Your task to perform on an android device: turn on priority inbox in the gmail app Image 0: 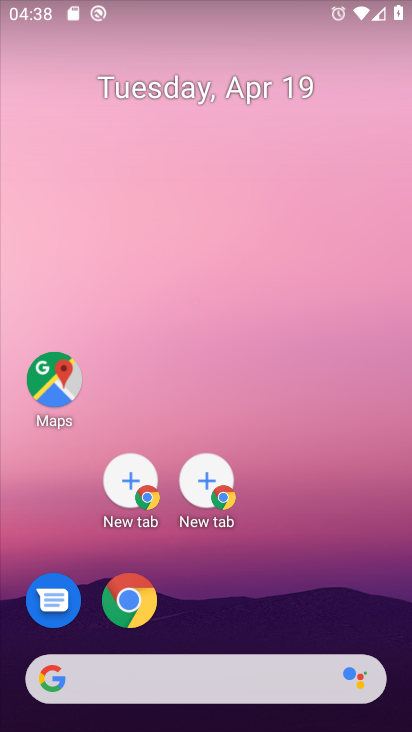
Step 0: drag from (201, 628) to (176, 78)
Your task to perform on an android device: turn on priority inbox in the gmail app Image 1: 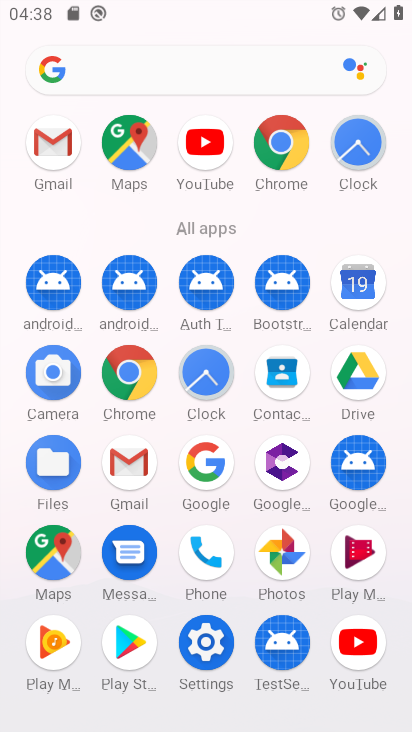
Step 1: click (43, 141)
Your task to perform on an android device: turn on priority inbox in the gmail app Image 2: 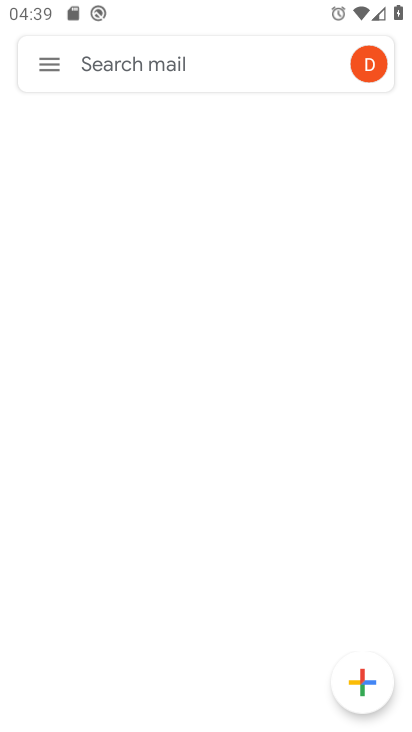
Step 2: click (46, 56)
Your task to perform on an android device: turn on priority inbox in the gmail app Image 3: 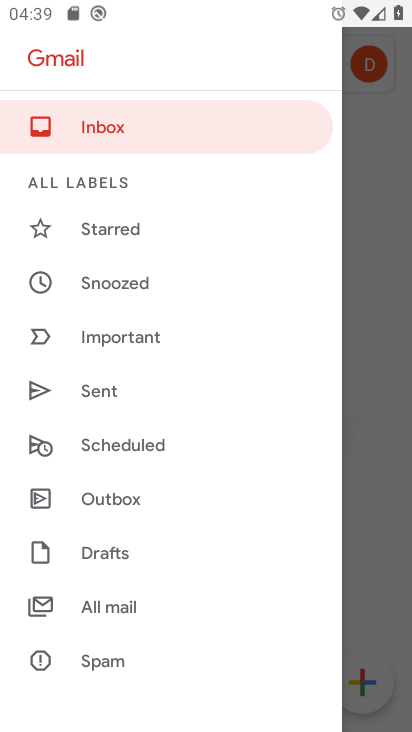
Step 3: drag from (135, 702) to (156, 289)
Your task to perform on an android device: turn on priority inbox in the gmail app Image 4: 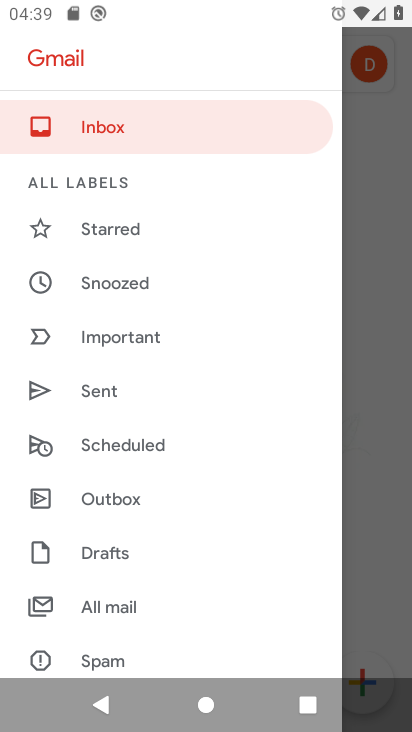
Step 4: drag from (118, 607) to (114, 155)
Your task to perform on an android device: turn on priority inbox in the gmail app Image 5: 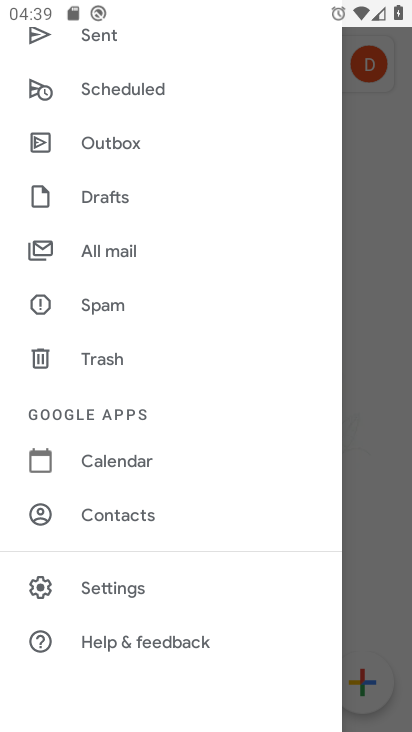
Step 5: click (97, 581)
Your task to perform on an android device: turn on priority inbox in the gmail app Image 6: 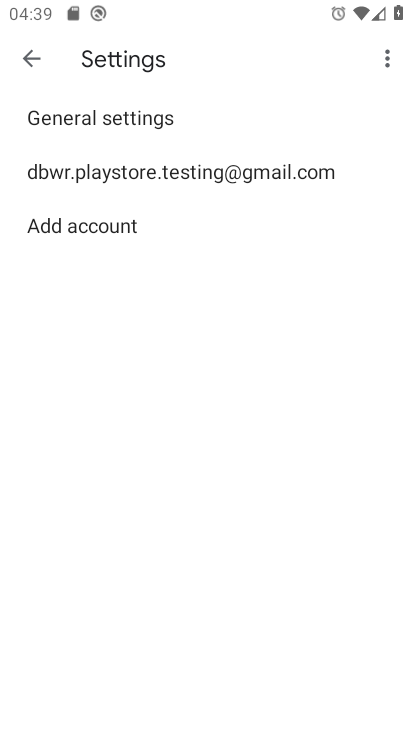
Step 6: click (229, 168)
Your task to perform on an android device: turn on priority inbox in the gmail app Image 7: 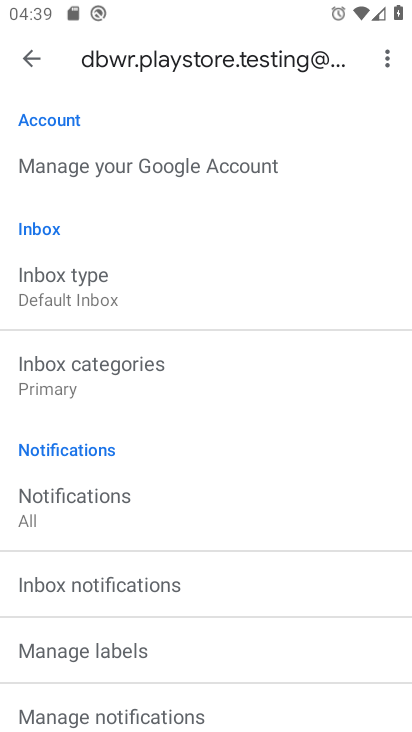
Step 7: click (107, 311)
Your task to perform on an android device: turn on priority inbox in the gmail app Image 8: 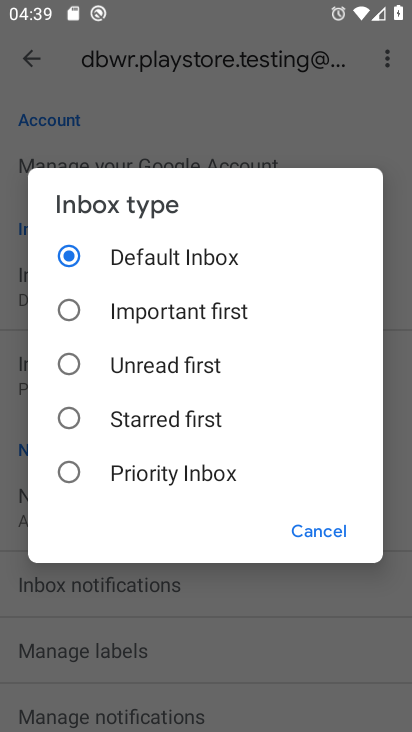
Step 8: click (134, 459)
Your task to perform on an android device: turn on priority inbox in the gmail app Image 9: 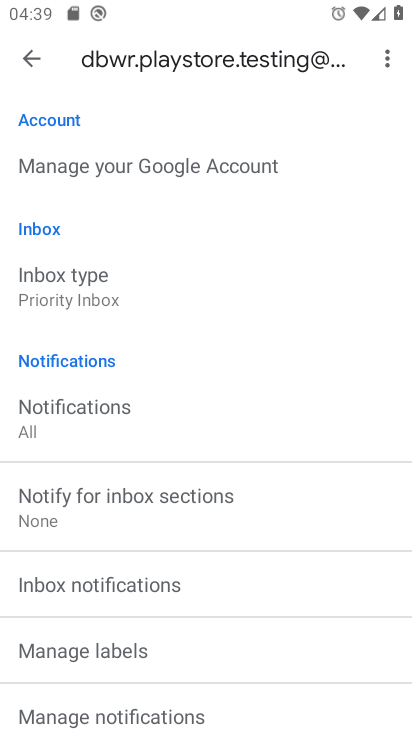
Step 9: task complete